Your task to perform on an android device: Do I have any events today? Image 0: 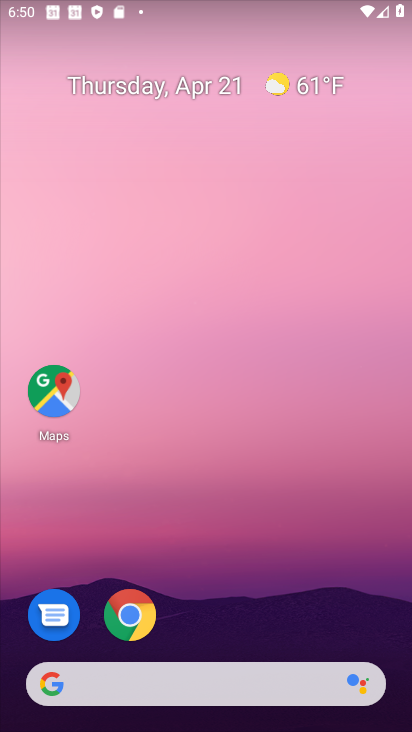
Step 0: drag from (199, 633) to (270, 146)
Your task to perform on an android device: Do I have any events today? Image 1: 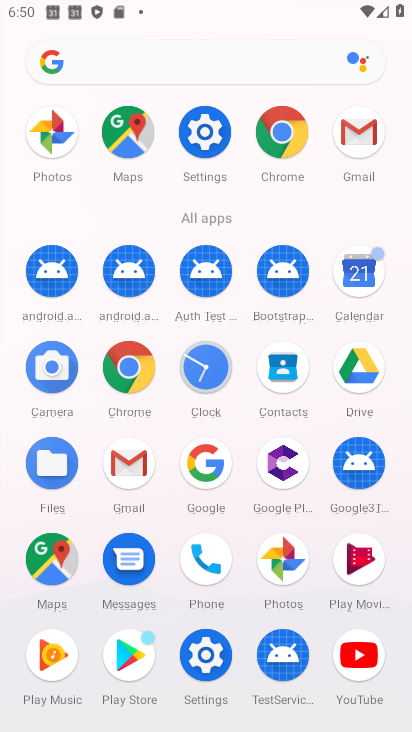
Step 1: click (366, 273)
Your task to perform on an android device: Do I have any events today? Image 2: 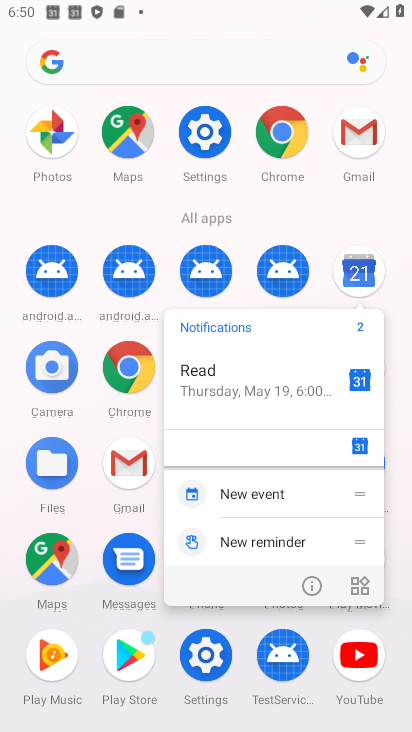
Step 2: click (311, 592)
Your task to perform on an android device: Do I have any events today? Image 3: 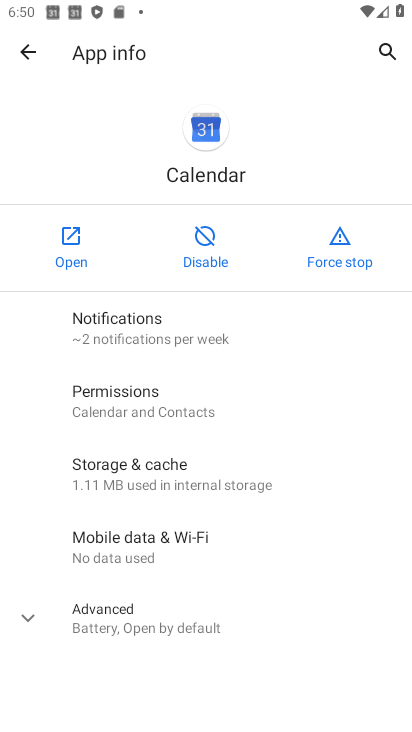
Step 3: click (51, 243)
Your task to perform on an android device: Do I have any events today? Image 4: 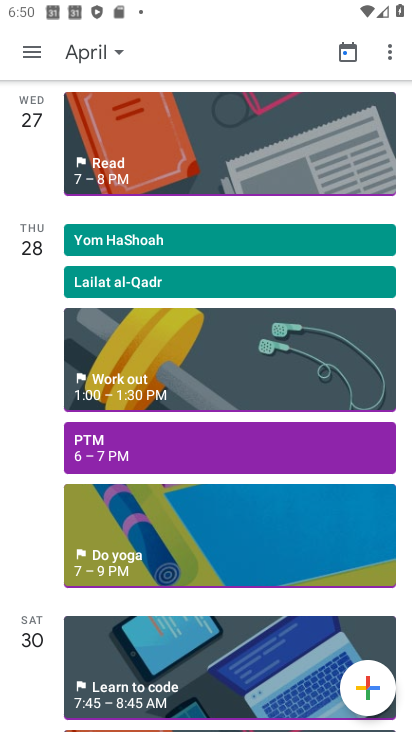
Step 4: click (44, 60)
Your task to perform on an android device: Do I have any events today? Image 5: 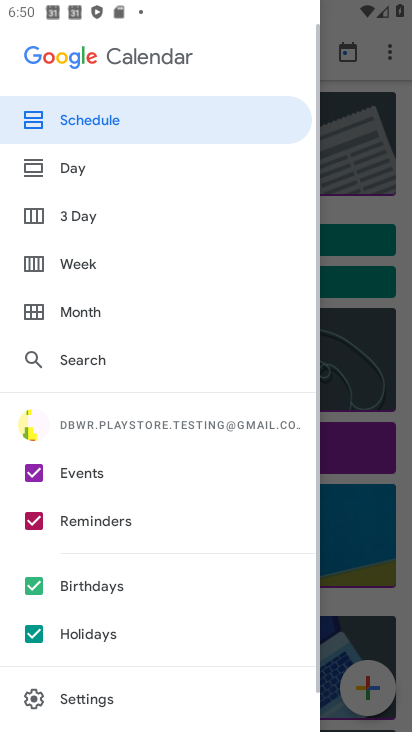
Step 5: click (28, 637)
Your task to perform on an android device: Do I have any events today? Image 6: 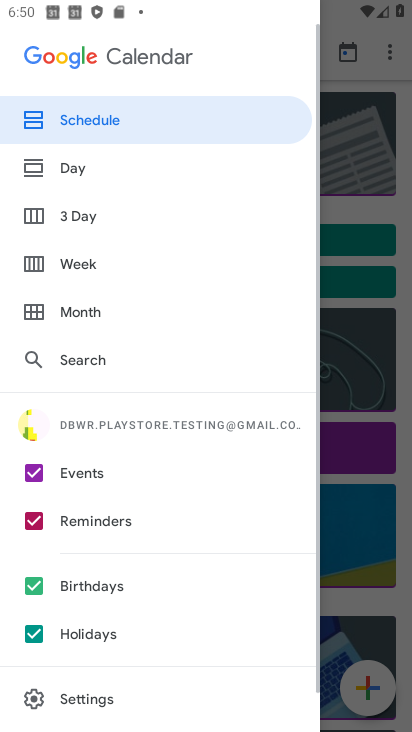
Step 6: click (32, 586)
Your task to perform on an android device: Do I have any events today? Image 7: 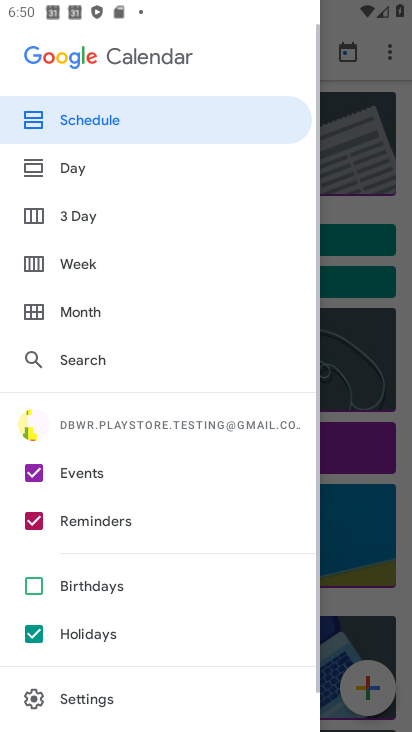
Step 7: click (35, 518)
Your task to perform on an android device: Do I have any events today? Image 8: 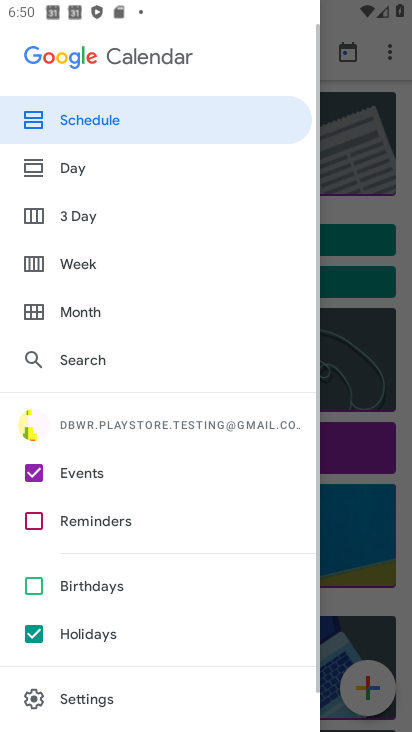
Step 8: click (37, 640)
Your task to perform on an android device: Do I have any events today? Image 9: 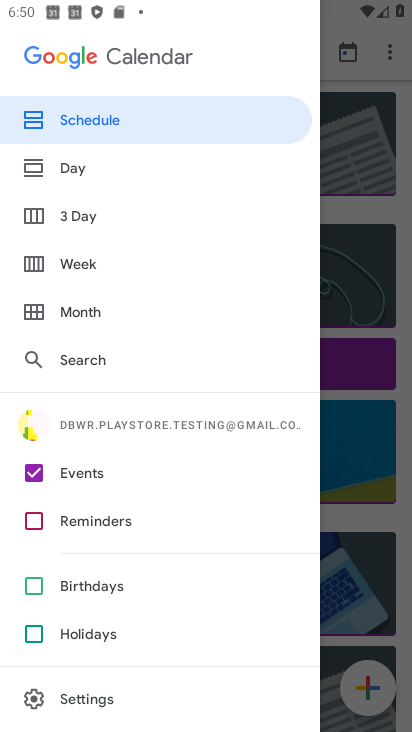
Step 9: task complete